Your task to perform on an android device: open the mobile data screen to see how much data has been used Image 0: 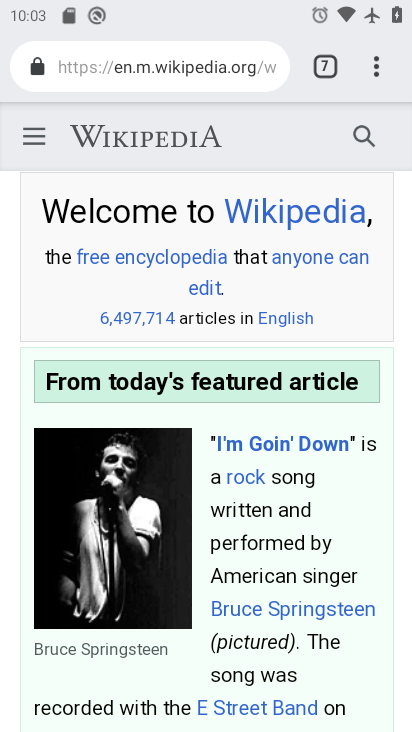
Step 0: press home button
Your task to perform on an android device: open the mobile data screen to see how much data has been used Image 1: 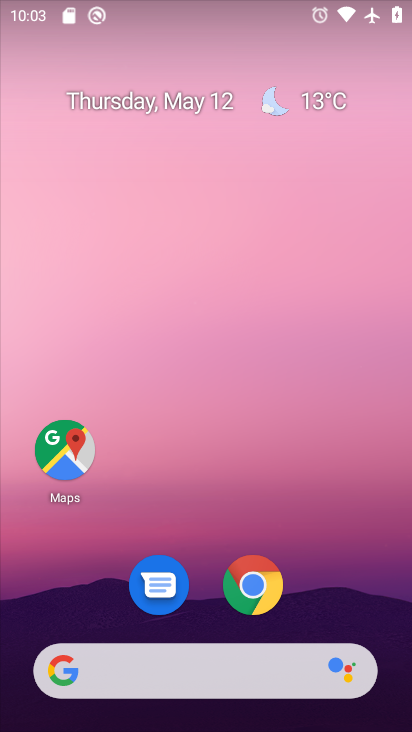
Step 1: drag from (243, 473) to (238, 42)
Your task to perform on an android device: open the mobile data screen to see how much data has been used Image 2: 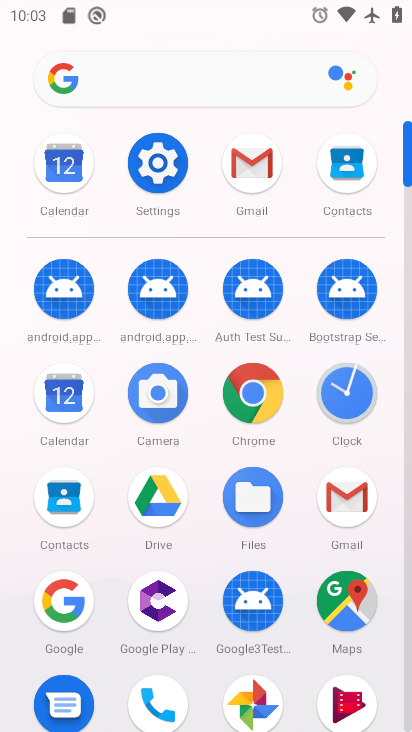
Step 2: click (172, 152)
Your task to perform on an android device: open the mobile data screen to see how much data has been used Image 3: 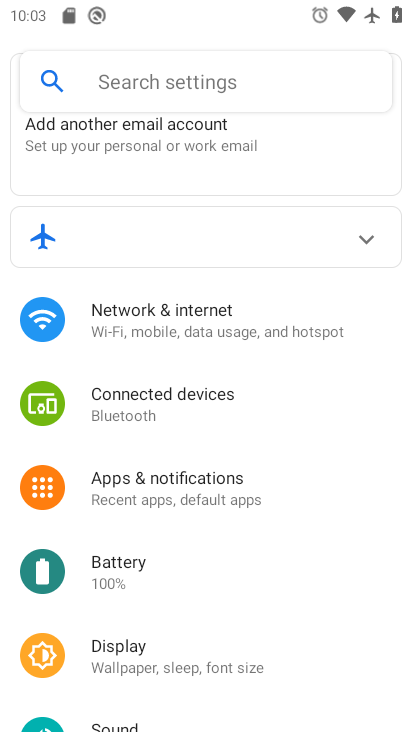
Step 3: click (217, 319)
Your task to perform on an android device: open the mobile data screen to see how much data has been used Image 4: 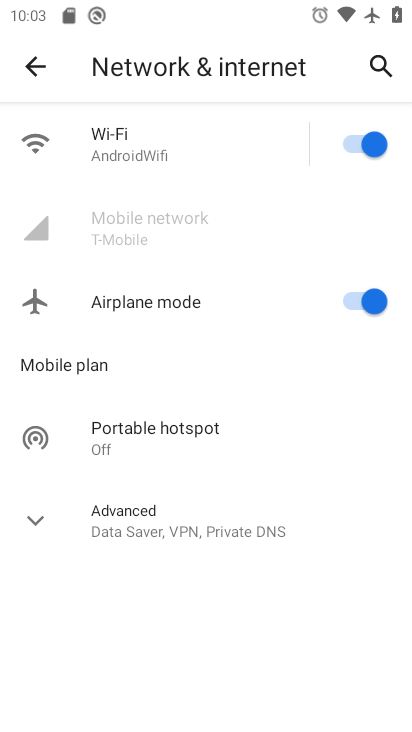
Step 4: click (245, 217)
Your task to perform on an android device: open the mobile data screen to see how much data has been used Image 5: 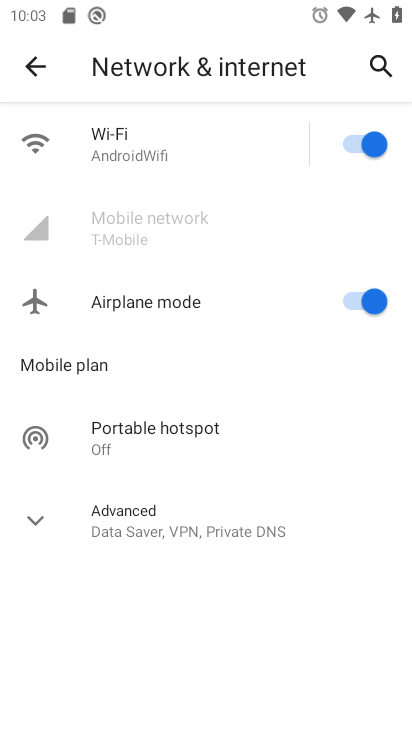
Step 5: click (347, 296)
Your task to perform on an android device: open the mobile data screen to see how much data has been used Image 6: 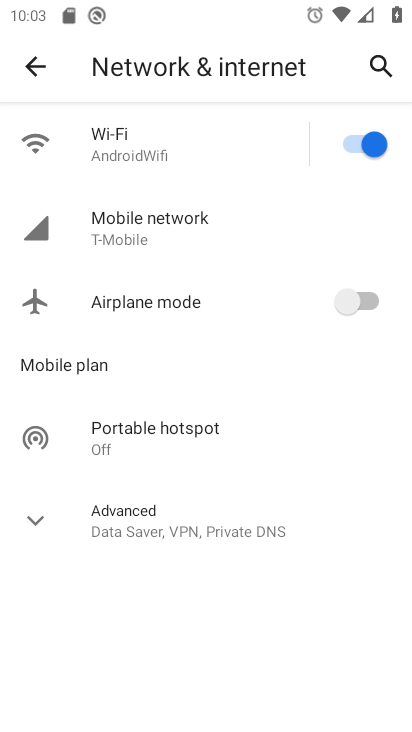
Step 6: click (225, 231)
Your task to perform on an android device: open the mobile data screen to see how much data has been used Image 7: 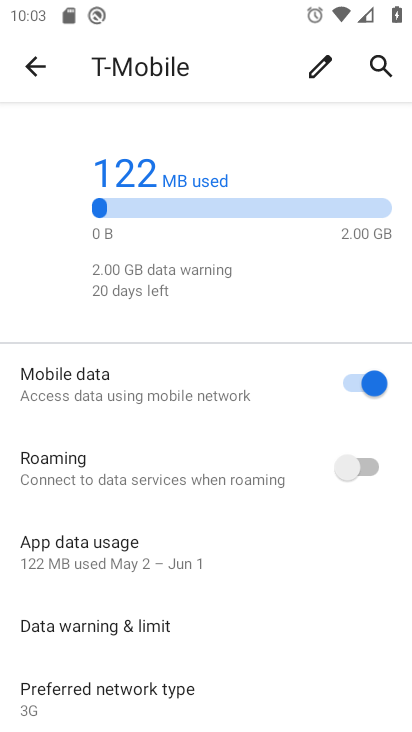
Step 7: task complete